Your task to perform on an android device: When is my next appointment? Image 0: 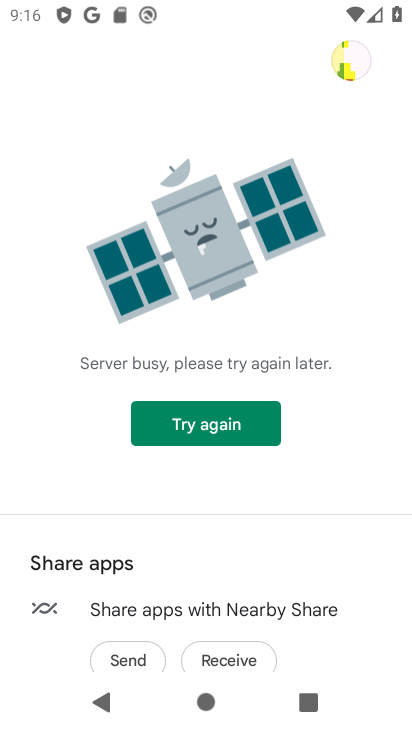
Step 0: press home button
Your task to perform on an android device: When is my next appointment? Image 1: 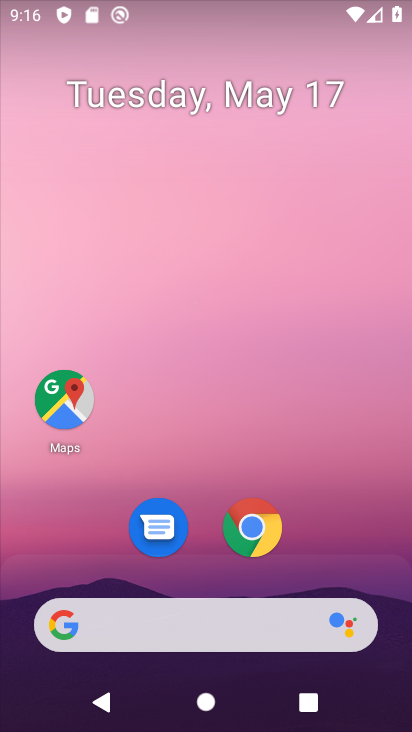
Step 1: drag from (198, 547) to (223, 12)
Your task to perform on an android device: When is my next appointment? Image 2: 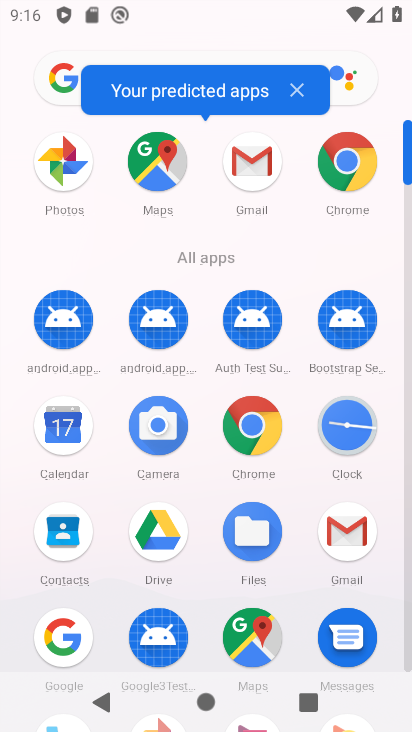
Step 2: click (64, 419)
Your task to perform on an android device: When is my next appointment? Image 3: 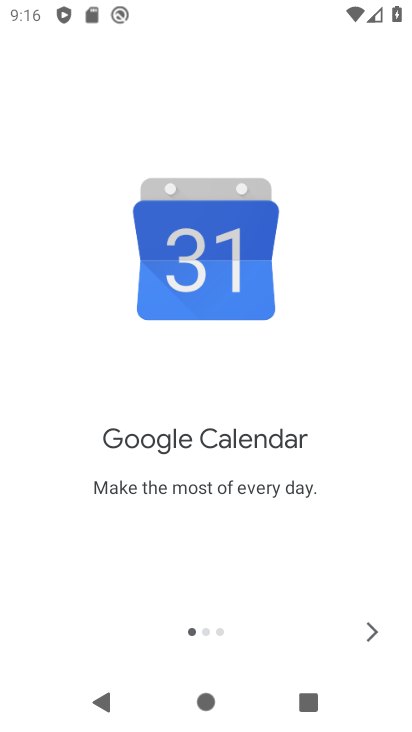
Step 3: click (368, 632)
Your task to perform on an android device: When is my next appointment? Image 4: 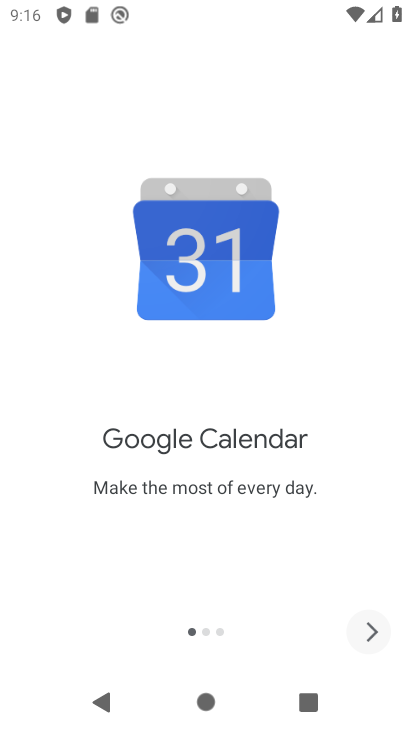
Step 4: click (368, 632)
Your task to perform on an android device: When is my next appointment? Image 5: 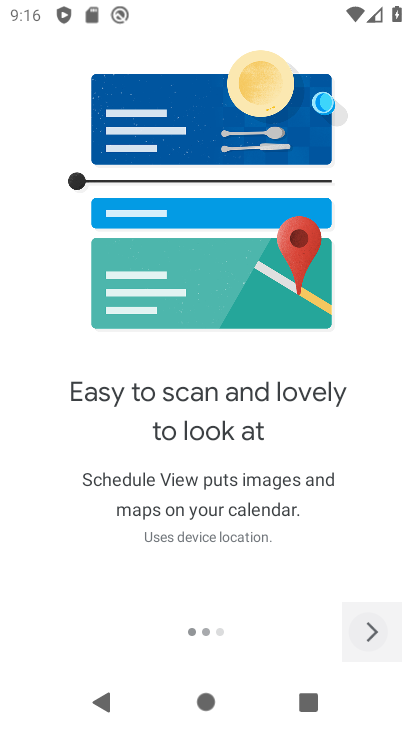
Step 5: click (368, 632)
Your task to perform on an android device: When is my next appointment? Image 6: 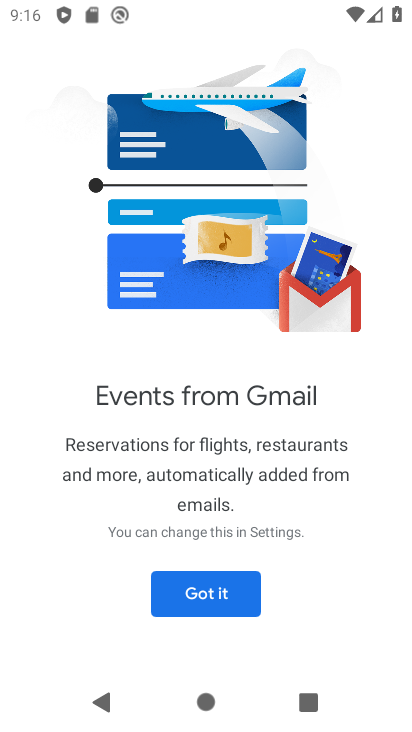
Step 6: task complete